Your task to perform on an android device: delete a single message in the gmail app Image 0: 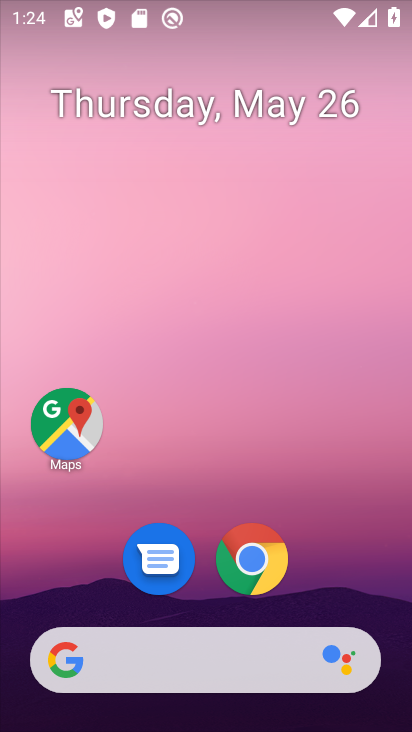
Step 0: press home button
Your task to perform on an android device: delete a single message in the gmail app Image 1: 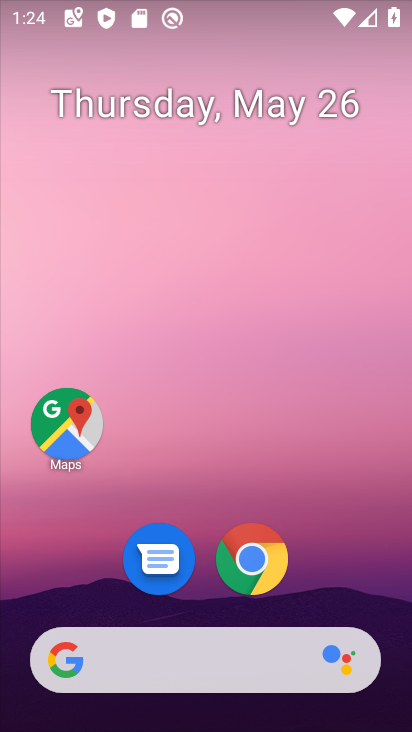
Step 1: drag from (146, 659) to (344, 112)
Your task to perform on an android device: delete a single message in the gmail app Image 2: 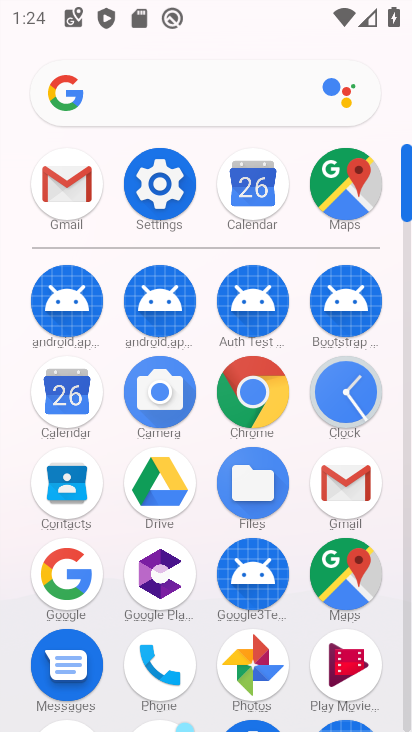
Step 2: click (69, 202)
Your task to perform on an android device: delete a single message in the gmail app Image 3: 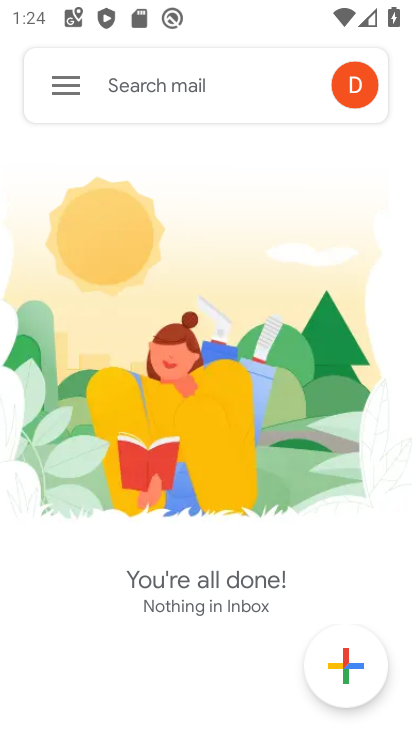
Step 3: task complete